Your task to perform on an android device: turn on priority inbox in the gmail app Image 0: 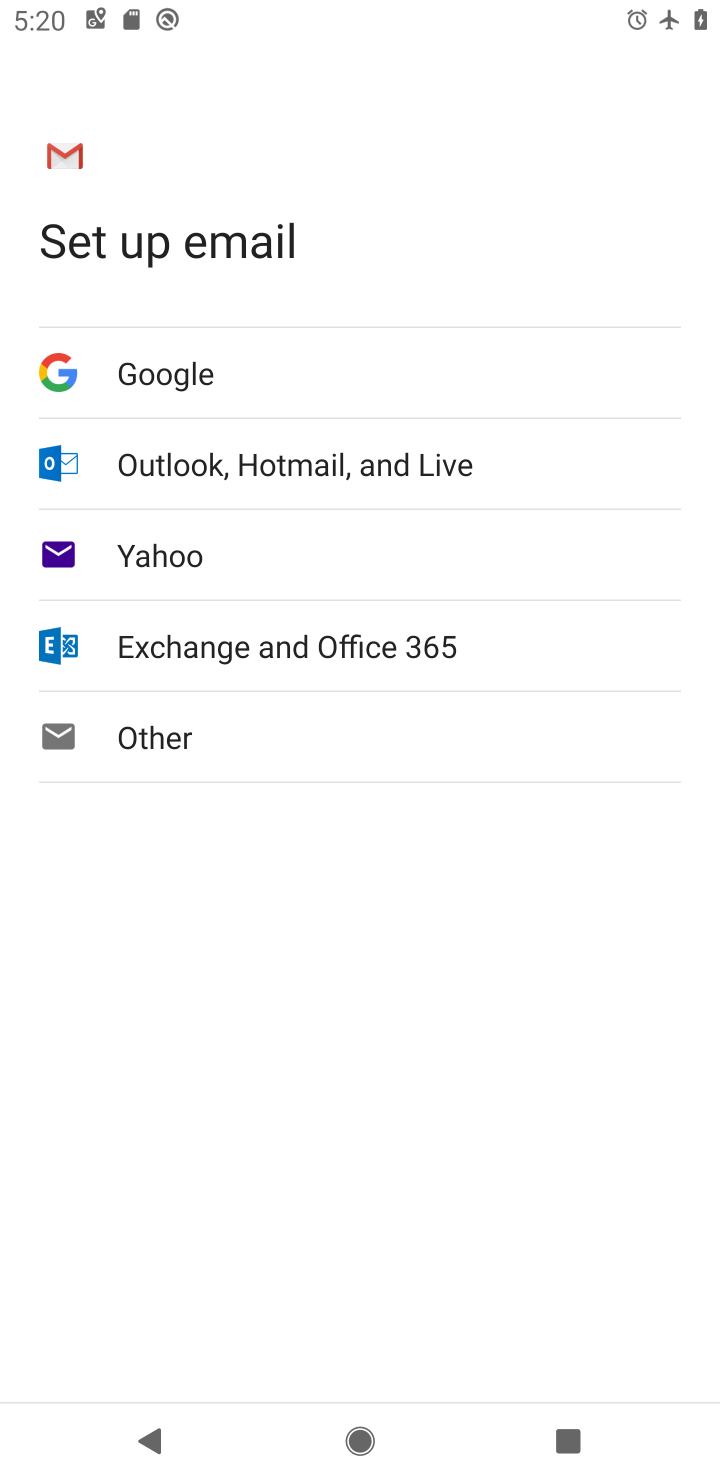
Step 0: press home button
Your task to perform on an android device: turn on priority inbox in the gmail app Image 1: 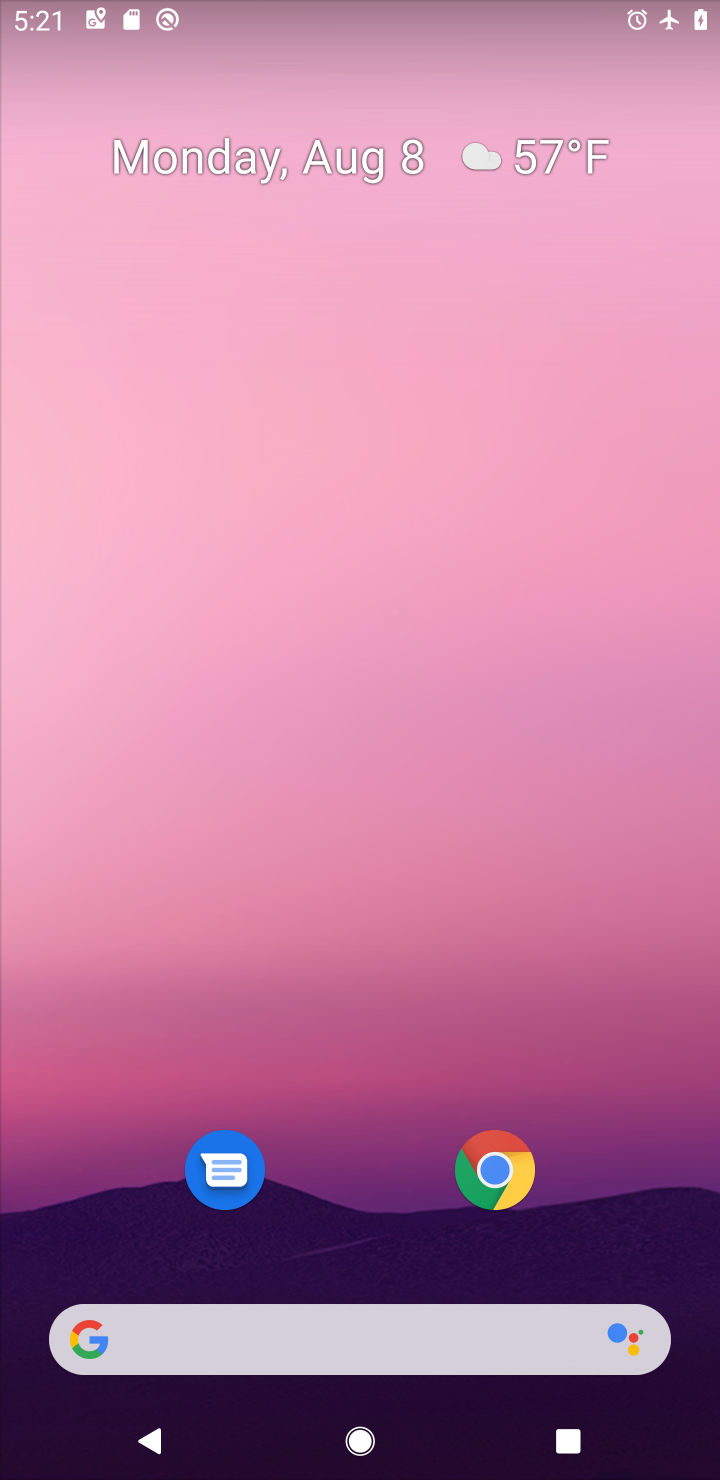
Step 1: drag from (348, 910) to (331, 347)
Your task to perform on an android device: turn on priority inbox in the gmail app Image 2: 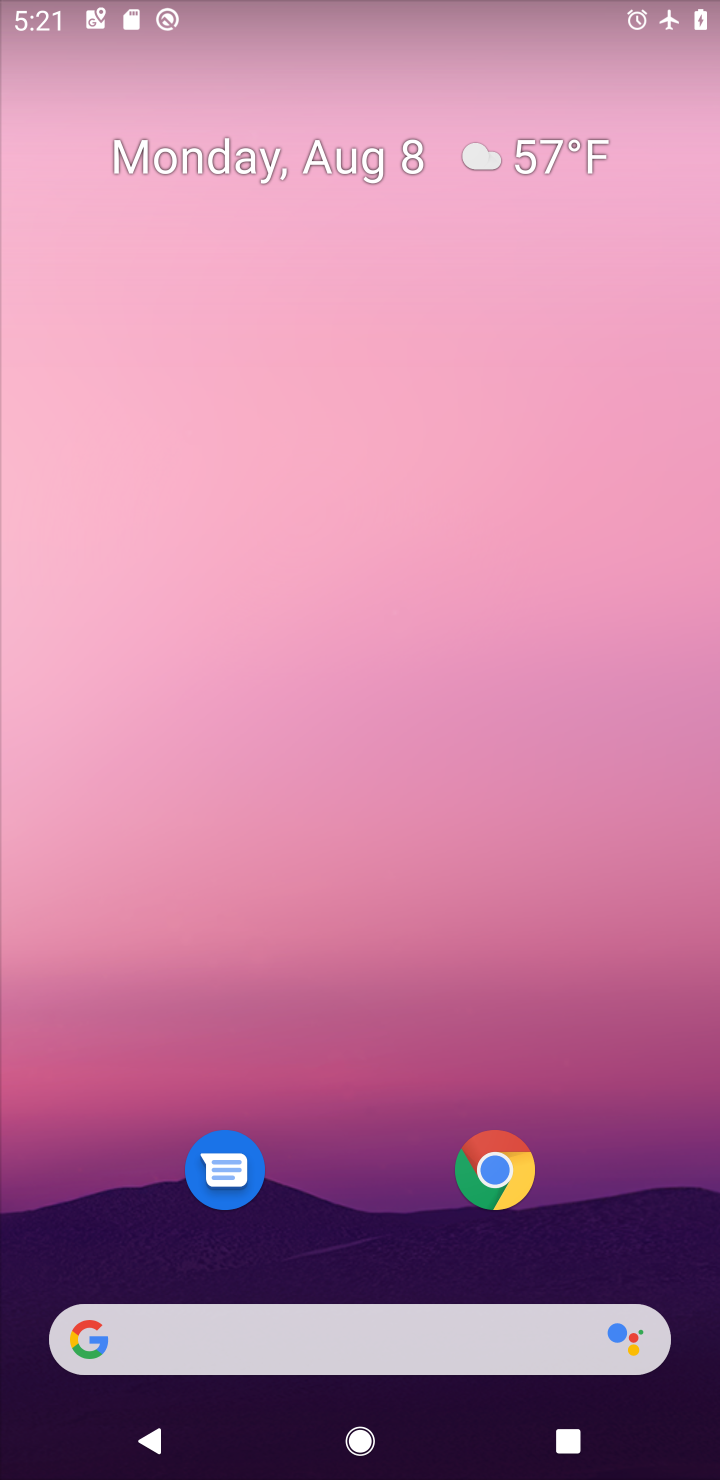
Step 2: drag from (362, 1085) to (362, 99)
Your task to perform on an android device: turn on priority inbox in the gmail app Image 3: 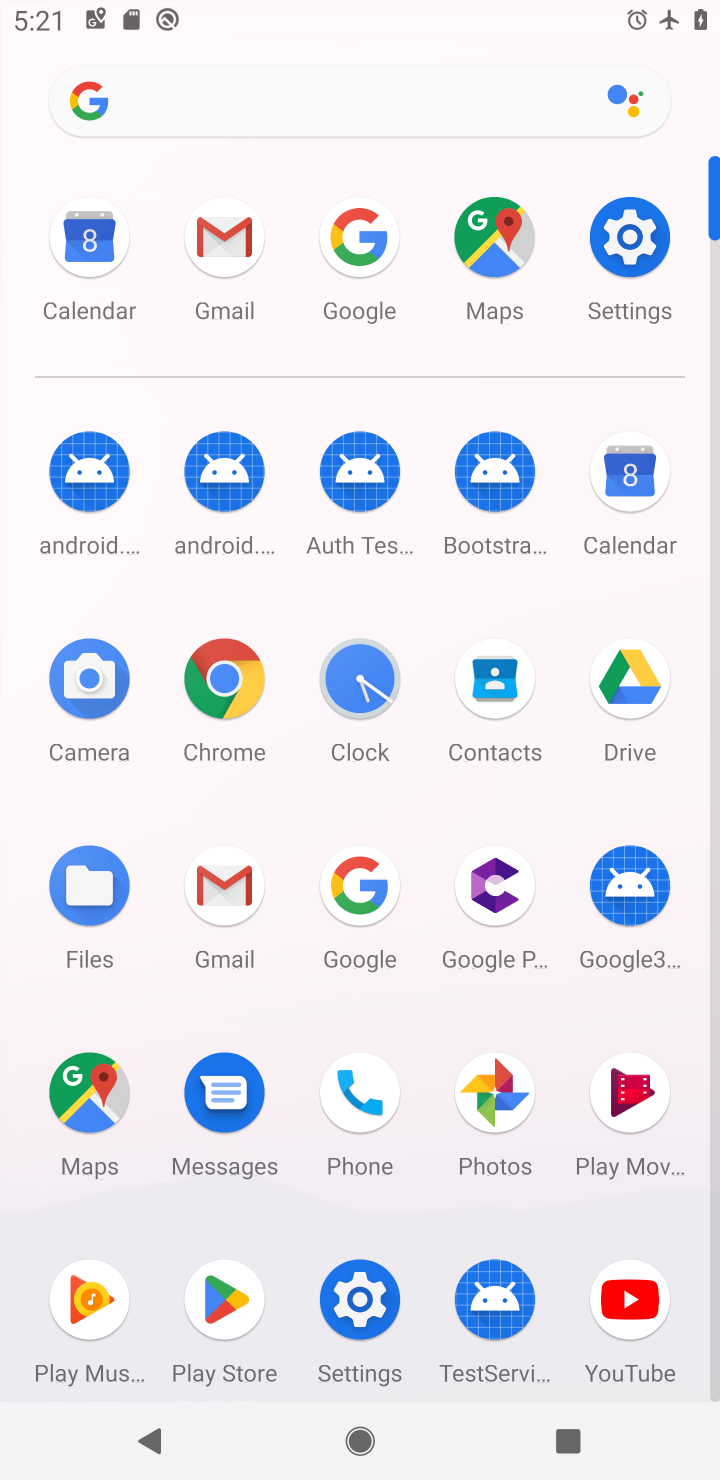
Step 3: click (217, 219)
Your task to perform on an android device: turn on priority inbox in the gmail app Image 4: 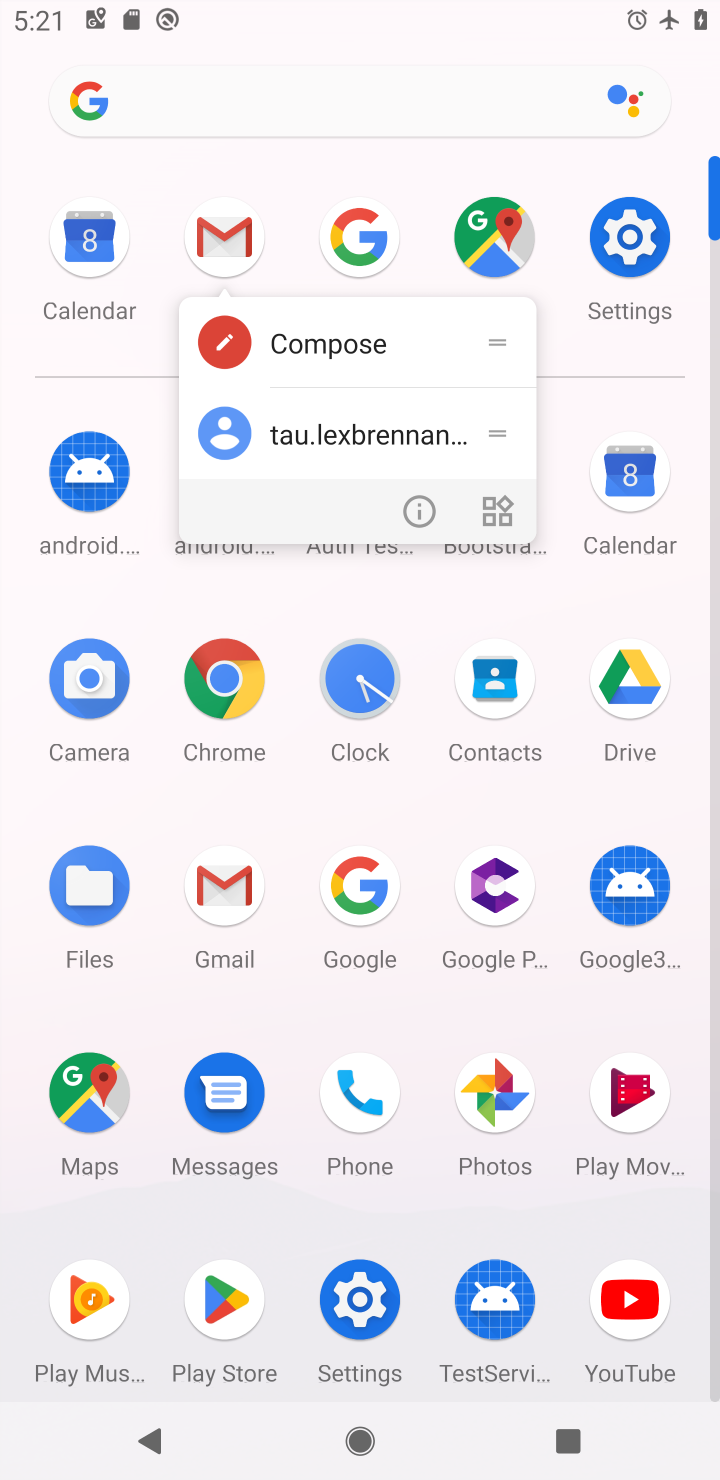
Step 4: click (217, 219)
Your task to perform on an android device: turn on priority inbox in the gmail app Image 5: 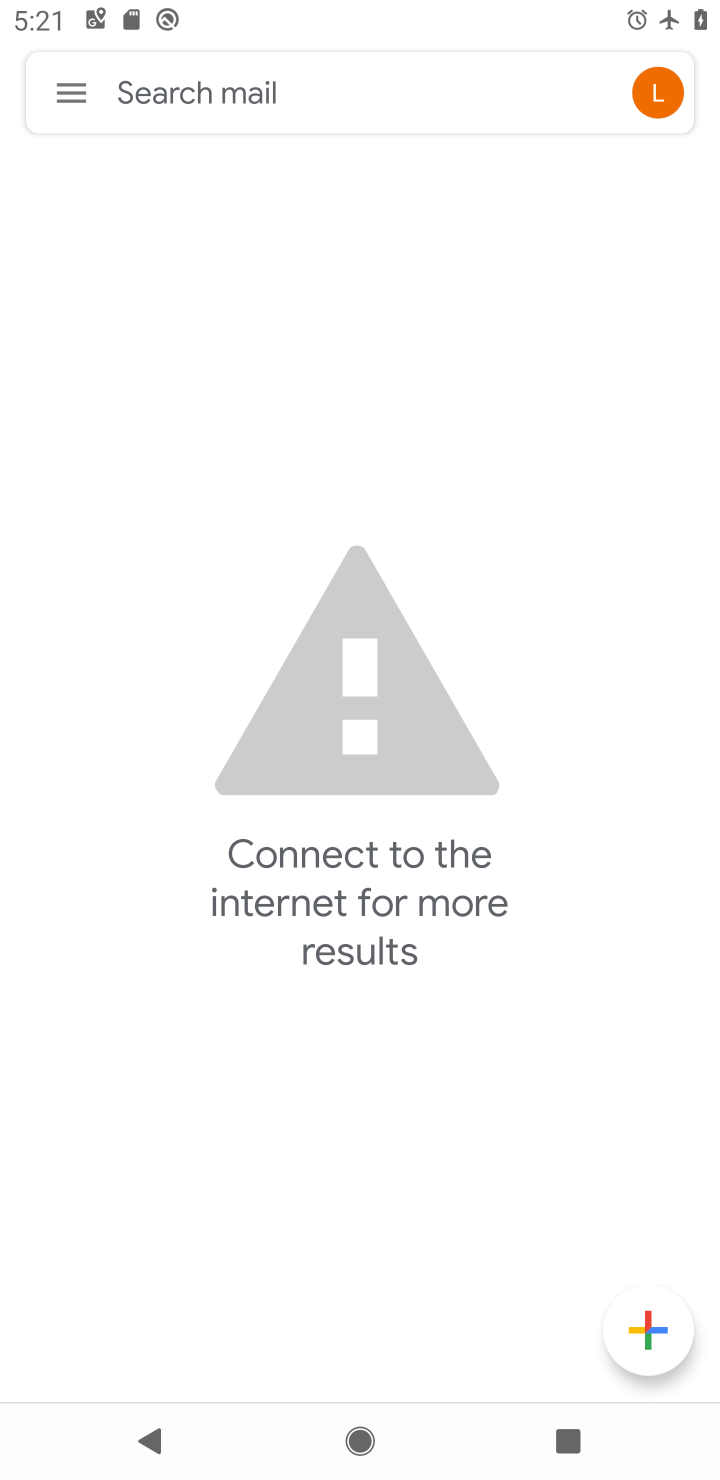
Step 5: click (118, 100)
Your task to perform on an android device: turn on priority inbox in the gmail app Image 6: 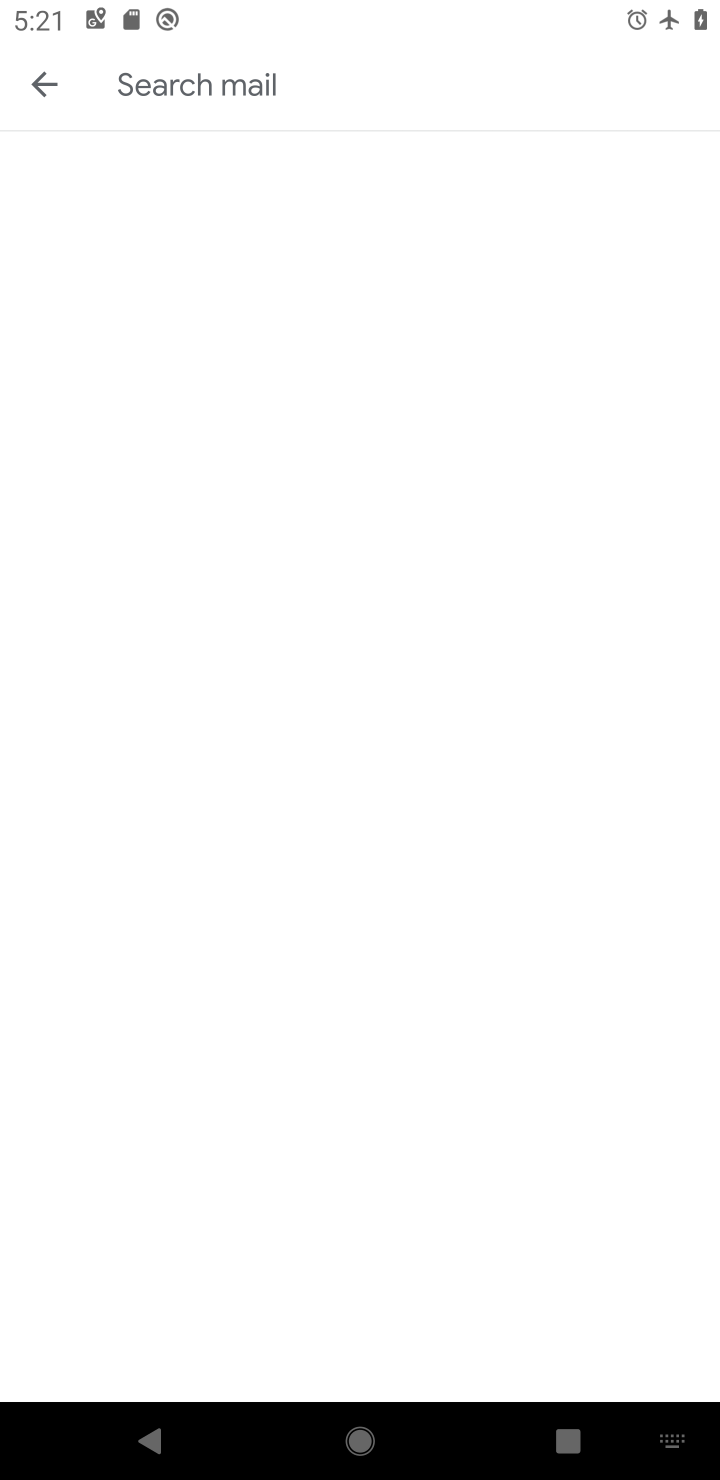
Step 6: click (65, 78)
Your task to perform on an android device: turn on priority inbox in the gmail app Image 7: 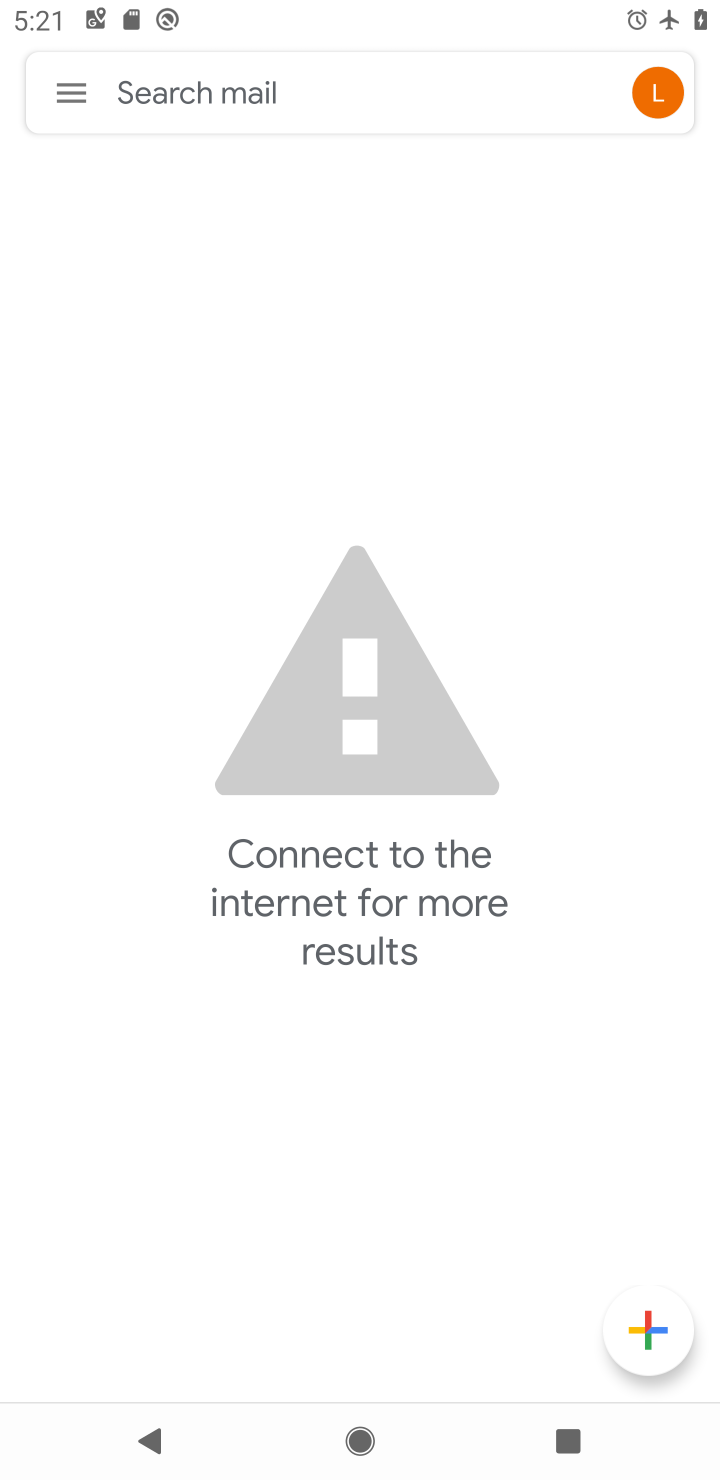
Step 7: click (59, 94)
Your task to perform on an android device: turn on priority inbox in the gmail app Image 8: 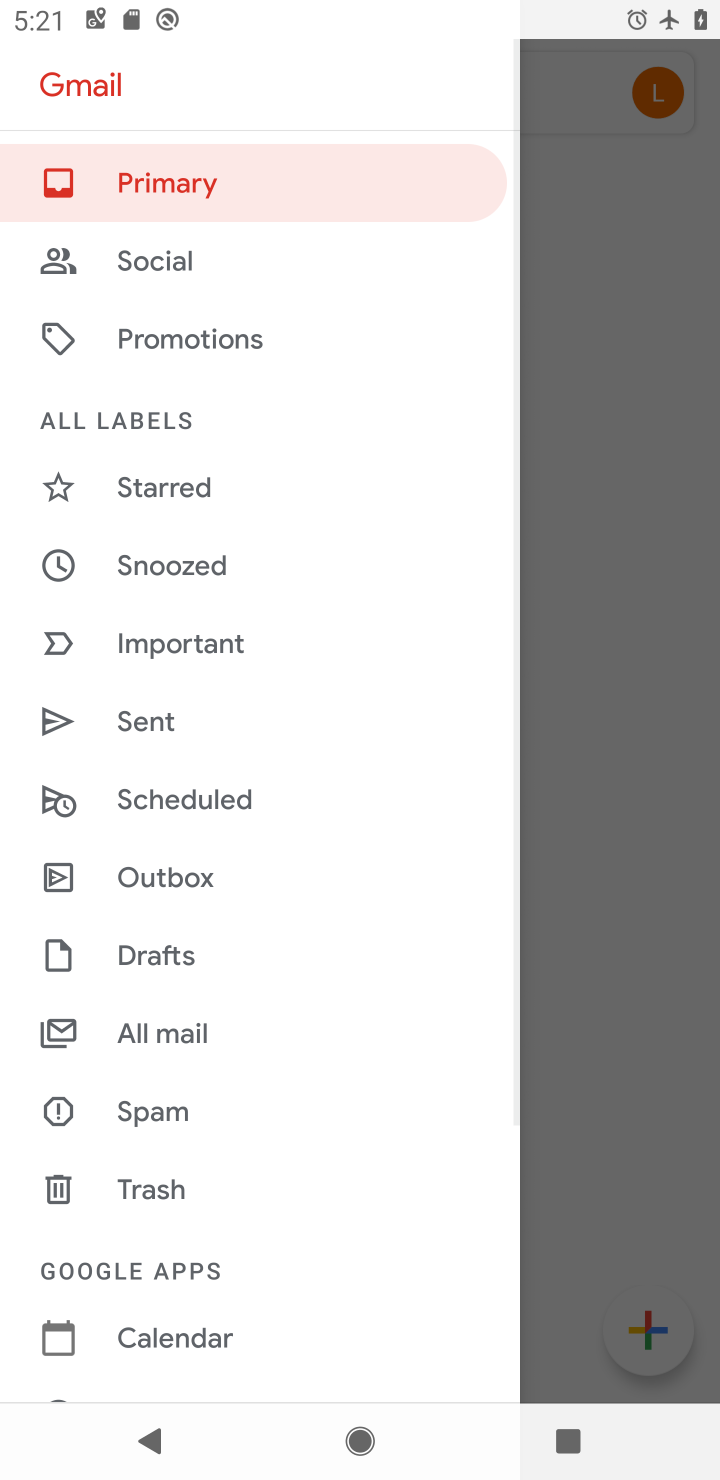
Step 8: drag from (221, 1285) to (223, 411)
Your task to perform on an android device: turn on priority inbox in the gmail app Image 9: 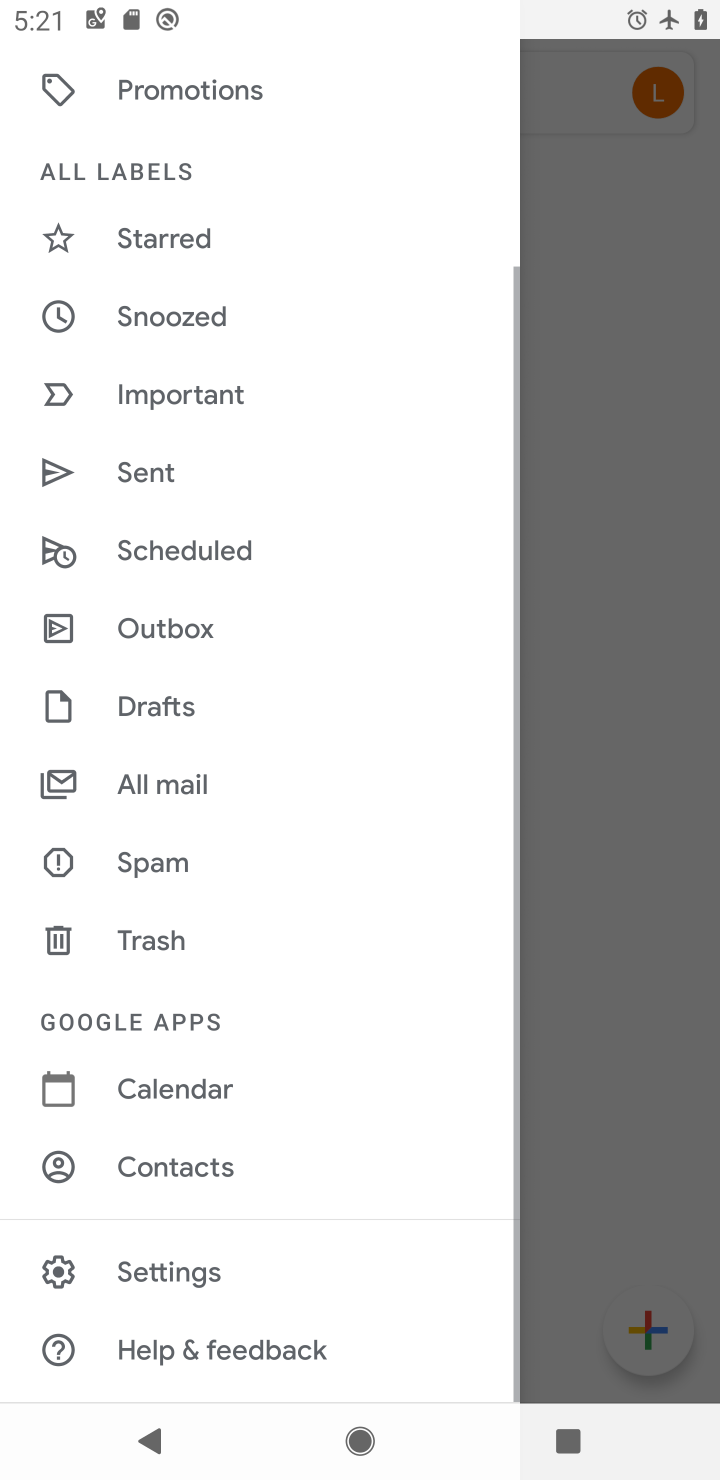
Step 9: click (130, 1253)
Your task to perform on an android device: turn on priority inbox in the gmail app Image 10: 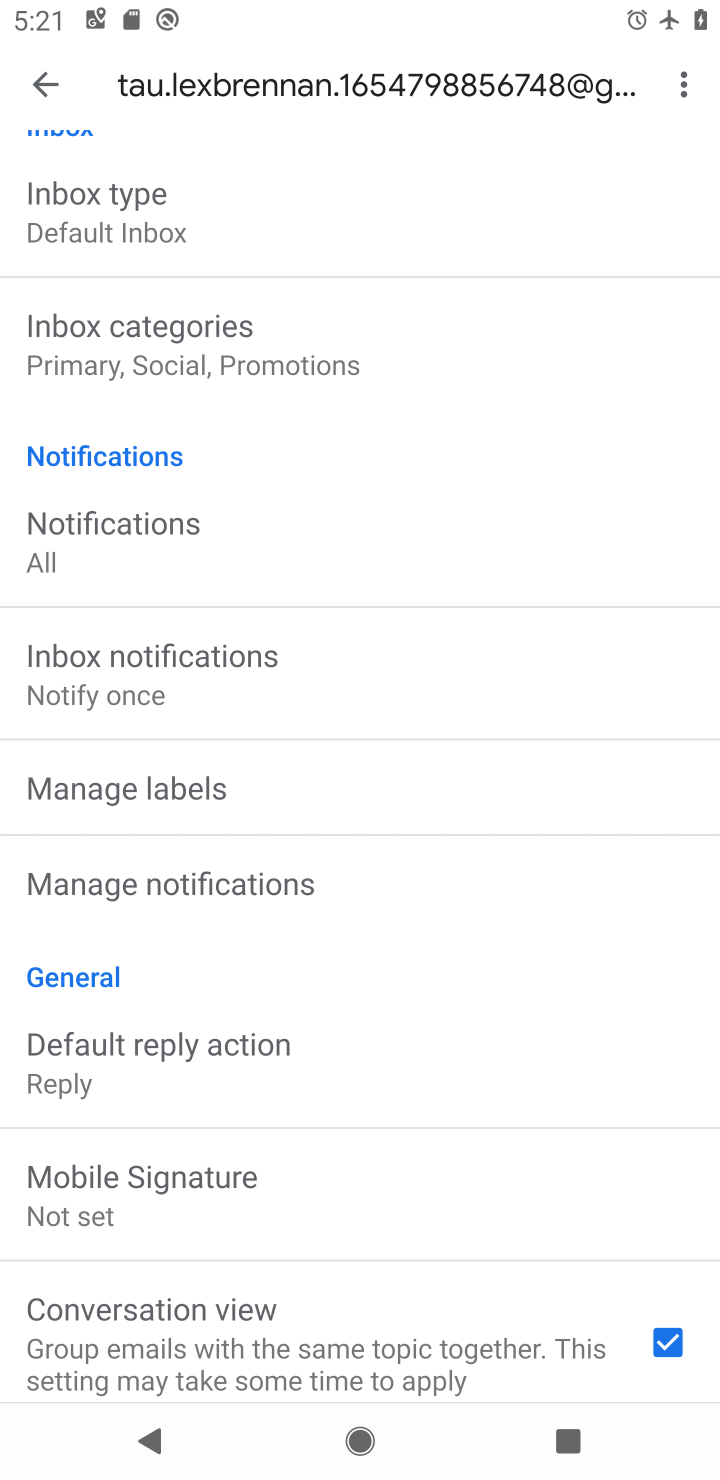
Step 10: click (201, 252)
Your task to perform on an android device: turn on priority inbox in the gmail app Image 11: 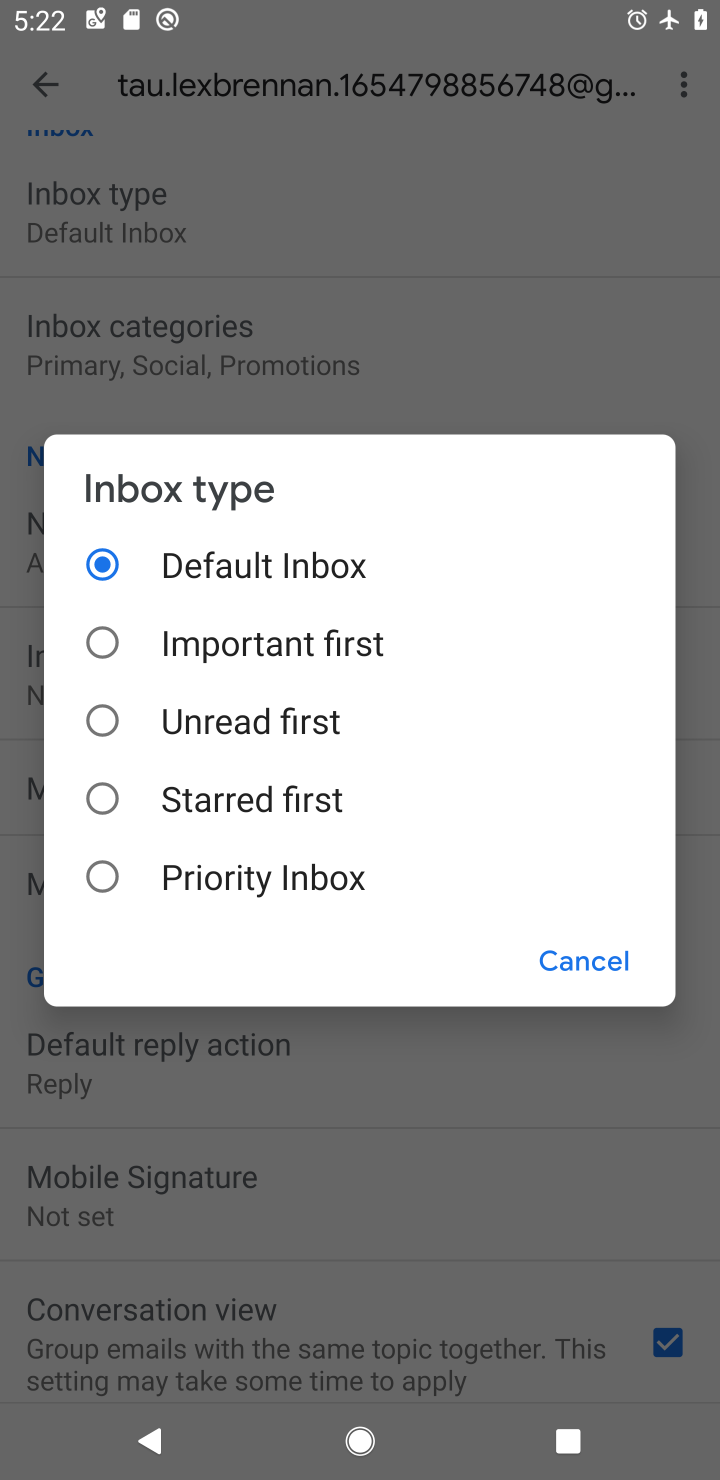
Step 11: click (130, 874)
Your task to perform on an android device: turn on priority inbox in the gmail app Image 12: 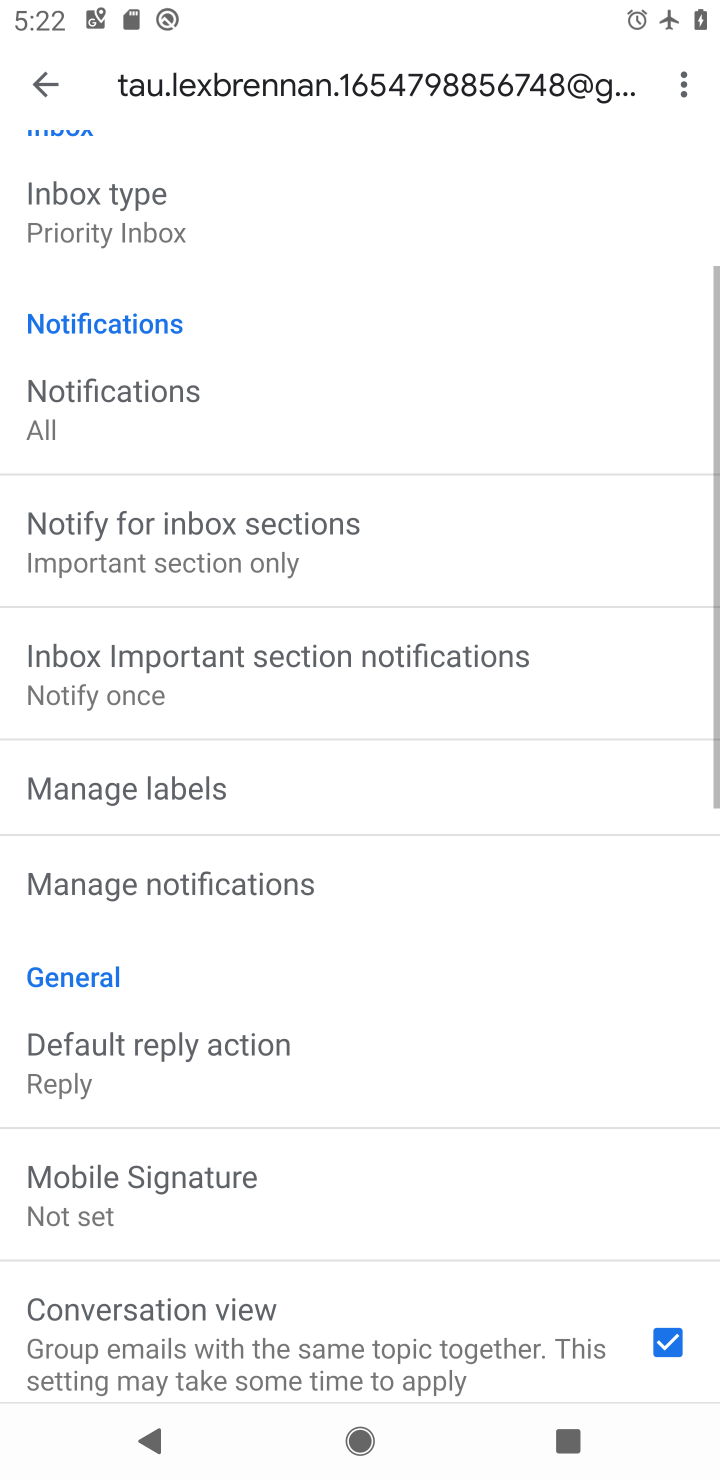
Step 12: task complete